Your task to perform on an android device: Go to Yahoo.com Image 0: 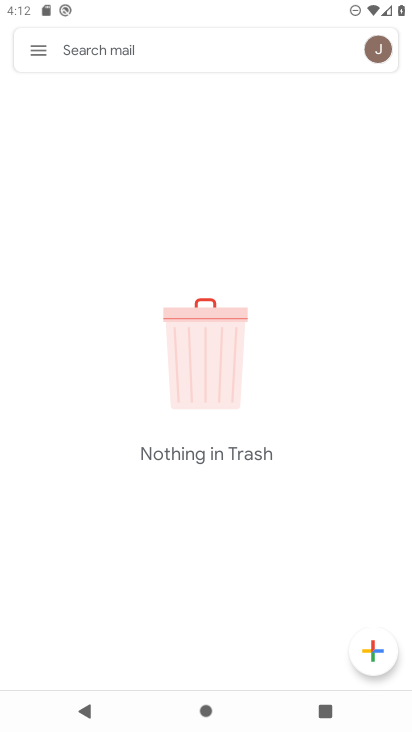
Step 0: press home button
Your task to perform on an android device: Go to Yahoo.com Image 1: 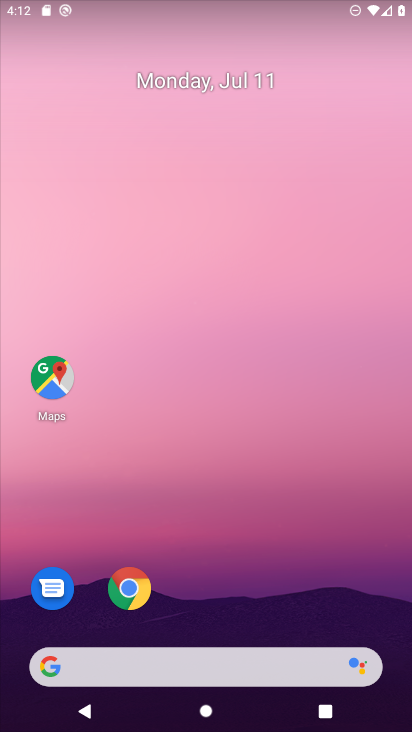
Step 1: click (182, 667)
Your task to perform on an android device: Go to Yahoo.com Image 2: 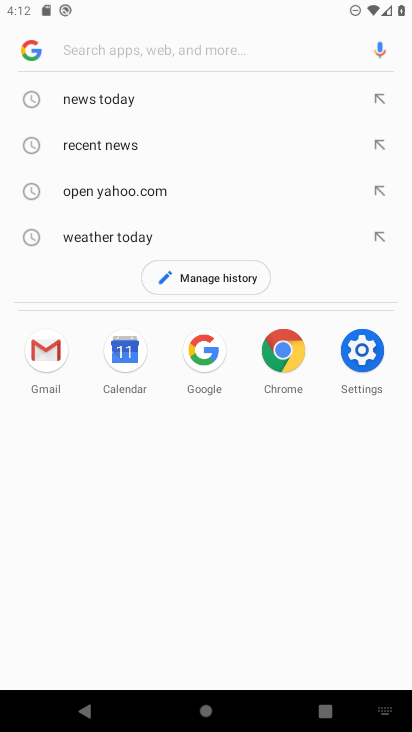
Step 2: type "Yahoo.com"
Your task to perform on an android device: Go to Yahoo.com Image 3: 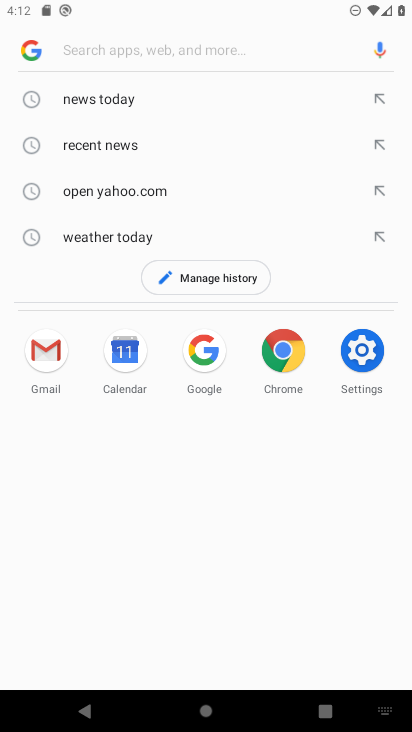
Step 3: click (93, 41)
Your task to perform on an android device: Go to Yahoo.com Image 4: 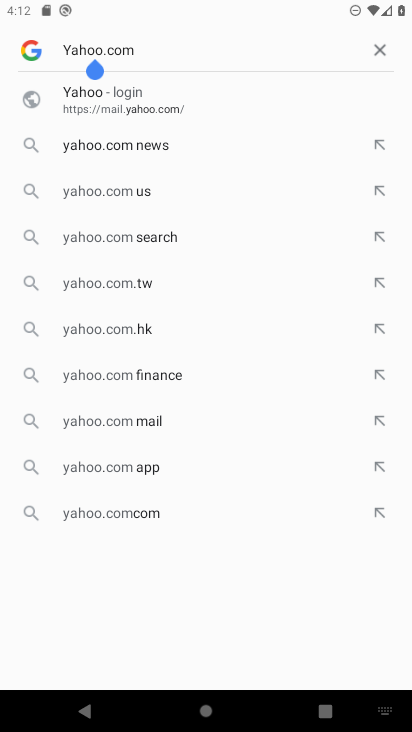
Step 4: press enter
Your task to perform on an android device: Go to Yahoo.com Image 5: 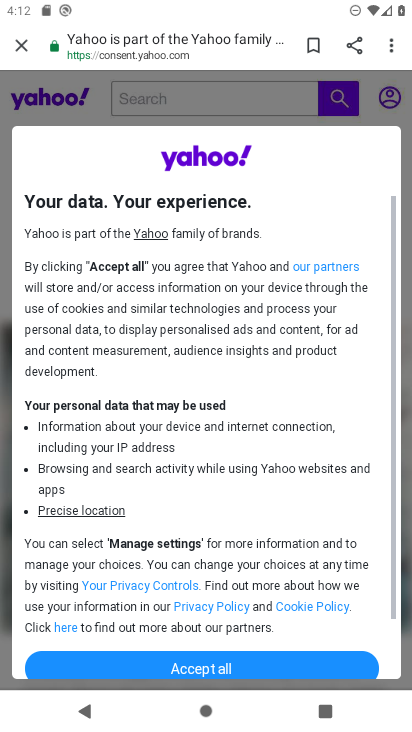
Step 5: click (218, 667)
Your task to perform on an android device: Go to Yahoo.com Image 6: 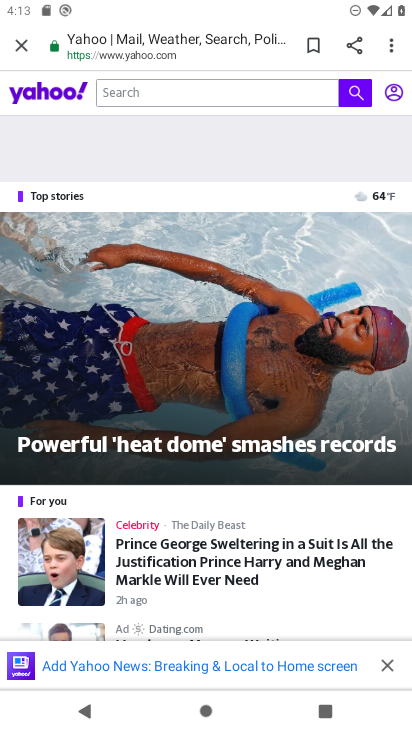
Step 6: task complete